Your task to perform on an android device: Open battery settings Image 0: 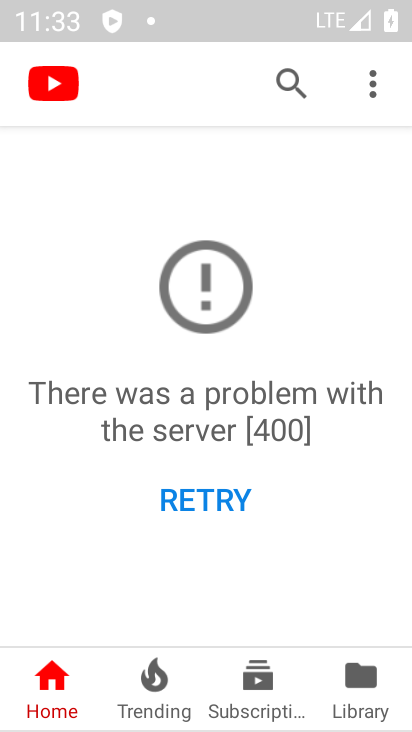
Step 0: press back button
Your task to perform on an android device: Open battery settings Image 1: 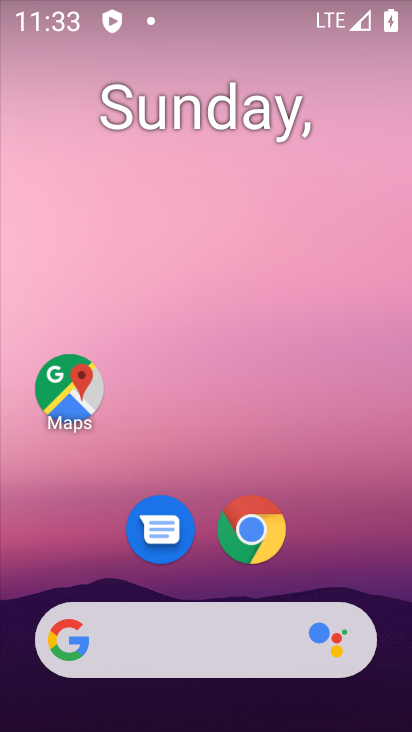
Step 1: drag from (334, 547) to (323, 97)
Your task to perform on an android device: Open battery settings Image 2: 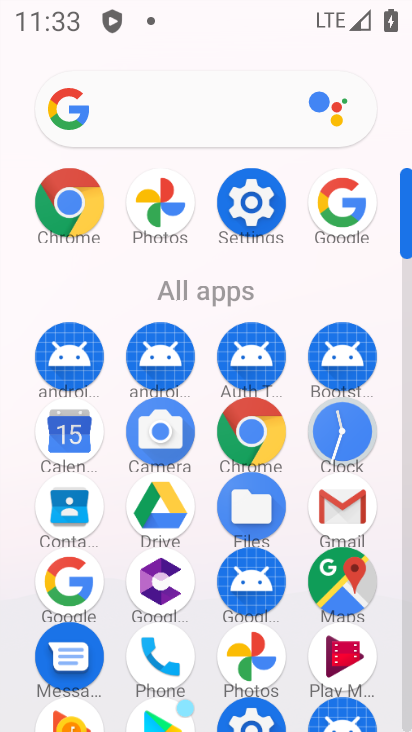
Step 2: click (253, 200)
Your task to perform on an android device: Open battery settings Image 3: 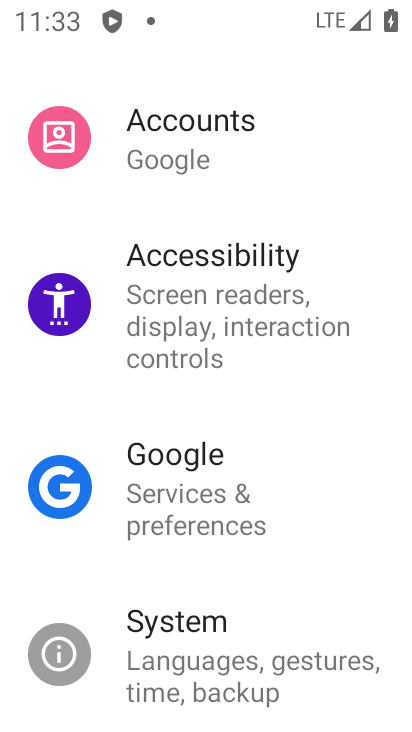
Step 3: drag from (251, 199) to (258, 368)
Your task to perform on an android device: Open battery settings Image 4: 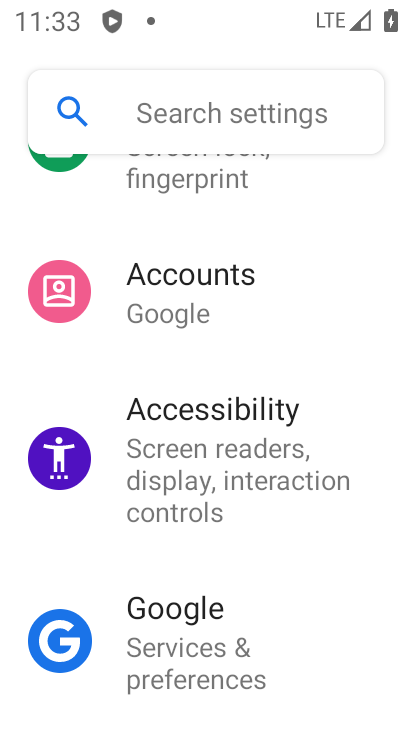
Step 4: drag from (252, 215) to (193, 402)
Your task to perform on an android device: Open battery settings Image 5: 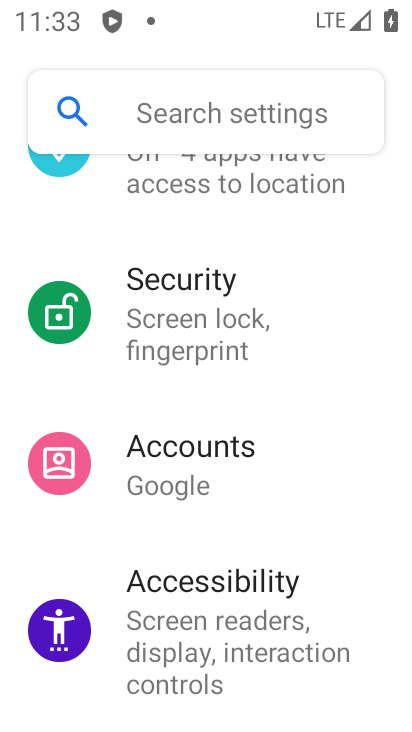
Step 5: drag from (233, 229) to (237, 364)
Your task to perform on an android device: Open battery settings Image 6: 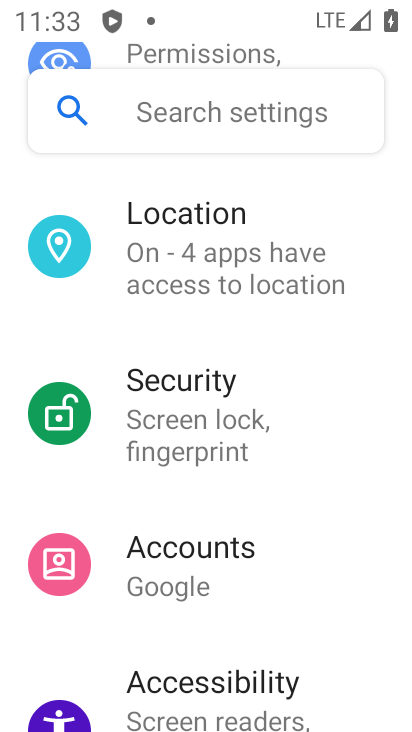
Step 6: drag from (292, 215) to (270, 388)
Your task to perform on an android device: Open battery settings Image 7: 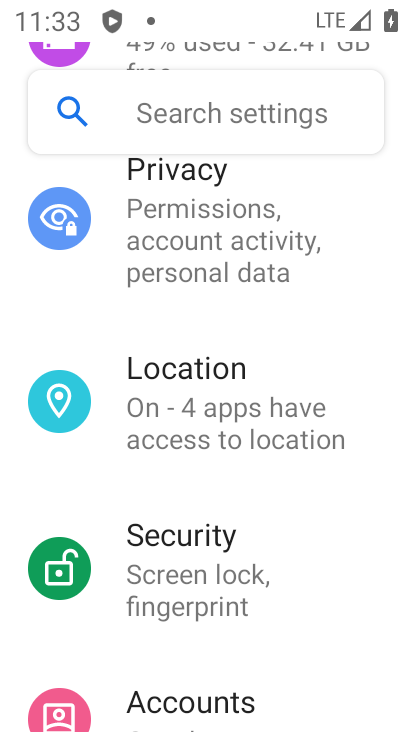
Step 7: drag from (261, 177) to (284, 353)
Your task to perform on an android device: Open battery settings Image 8: 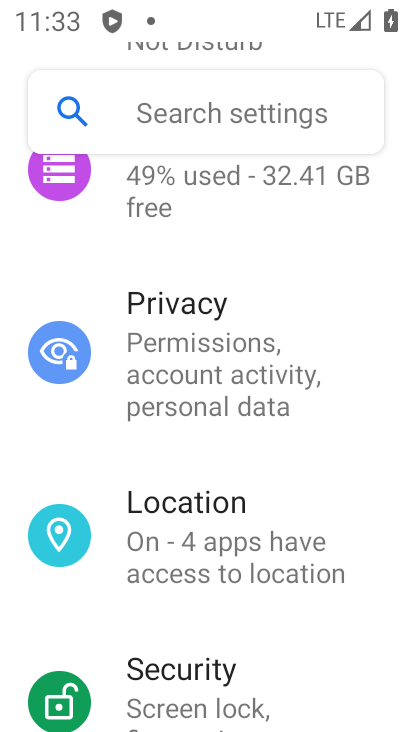
Step 8: drag from (267, 250) to (250, 422)
Your task to perform on an android device: Open battery settings Image 9: 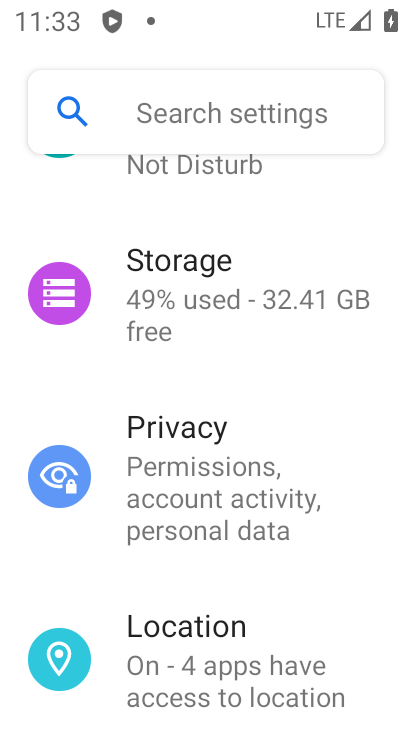
Step 9: drag from (284, 231) to (284, 355)
Your task to perform on an android device: Open battery settings Image 10: 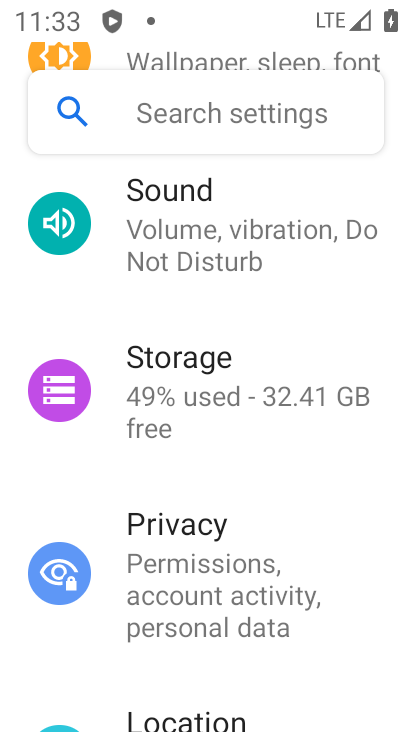
Step 10: drag from (289, 191) to (254, 365)
Your task to perform on an android device: Open battery settings Image 11: 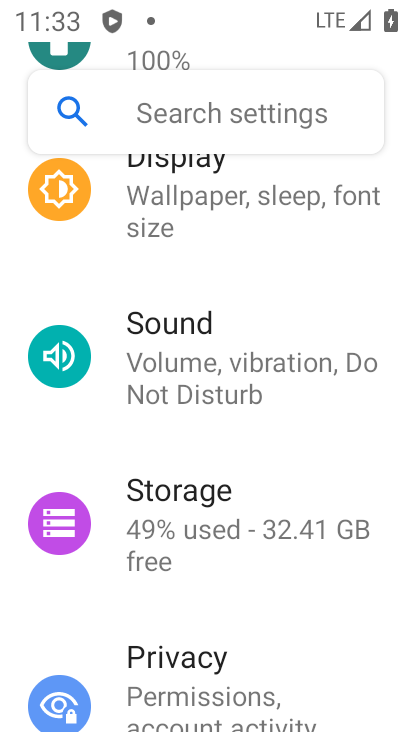
Step 11: drag from (277, 164) to (263, 308)
Your task to perform on an android device: Open battery settings Image 12: 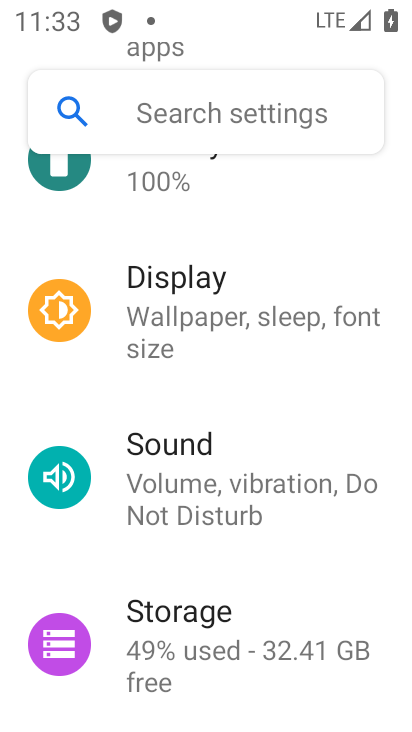
Step 12: drag from (273, 231) to (265, 320)
Your task to perform on an android device: Open battery settings Image 13: 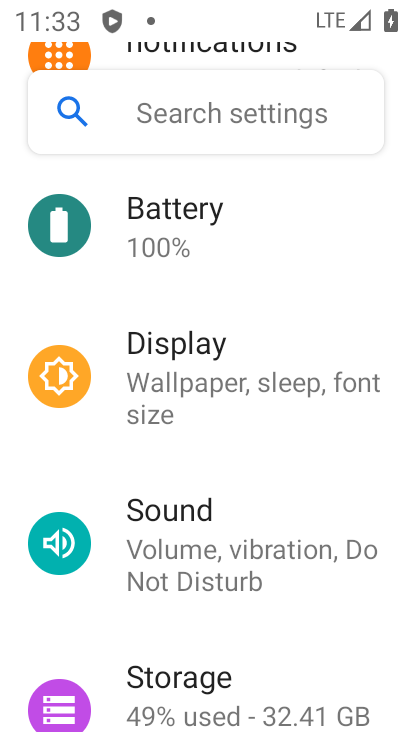
Step 13: click (197, 205)
Your task to perform on an android device: Open battery settings Image 14: 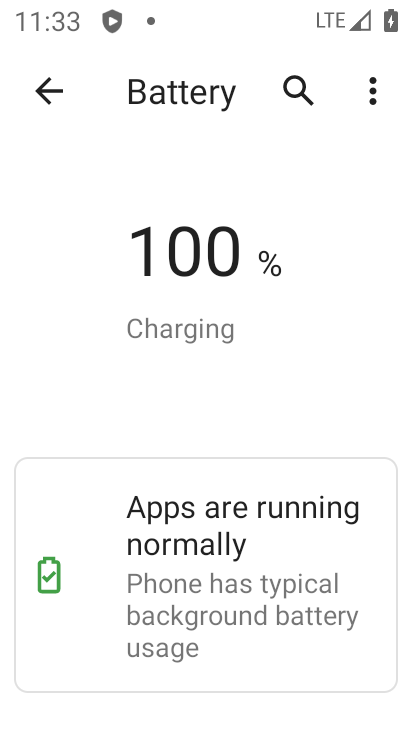
Step 14: task complete